Your task to perform on an android device: turn on data saver in the chrome app Image 0: 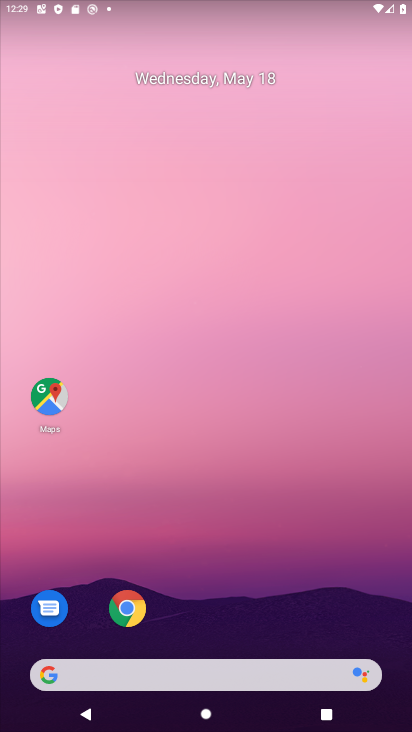
Step 0: click (111, 597)
Your task to perform on an android device: turn on data saver in the chrome app Image 1: 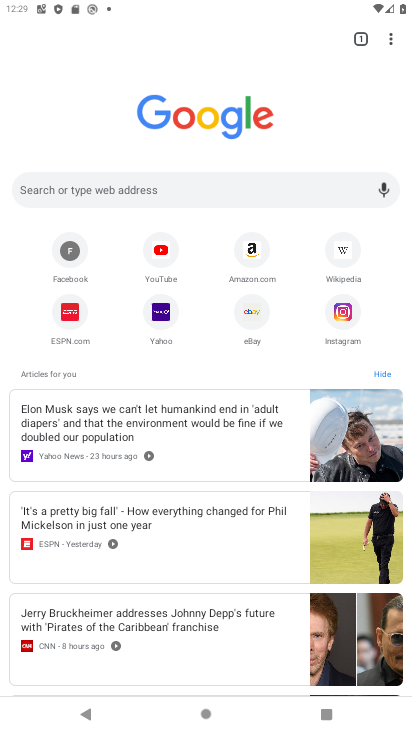
Step 1: click (390, 33)
Your task to perform on an android device: turn on data saver in the chrome app Image 2: 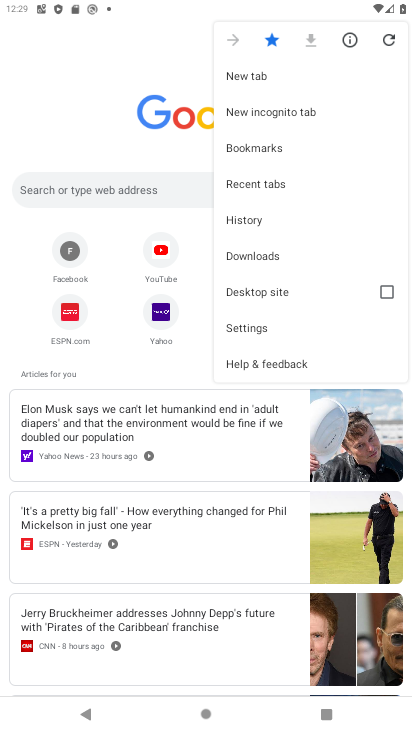
Step 2: click (275, 327)
Your task to perform on an android device: turn on data saver in the chrome app Image 3: 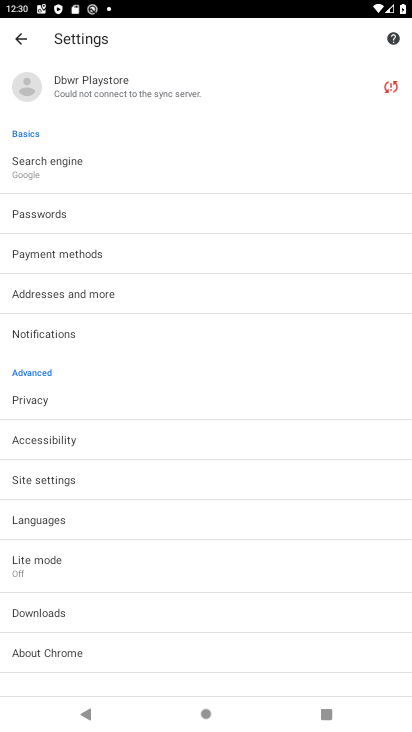
Step 3: click (102, 563)
Your task to perform on an android device: turn on data saver in the chrome app Image 4: 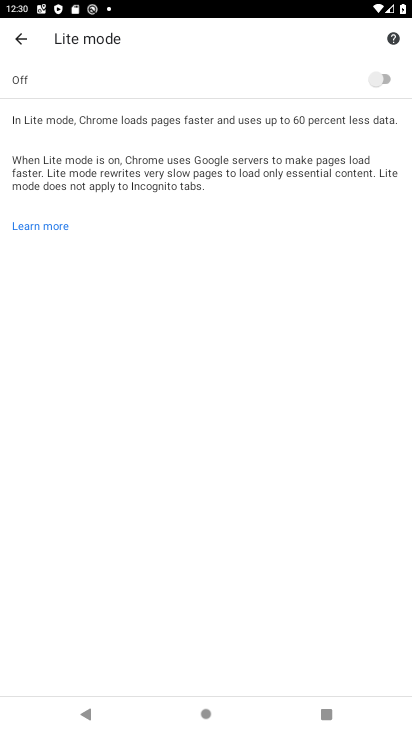
Step 4: click (382, 78)
Your task to perform on an android device: turn on data saver in the chrome app Image 5: 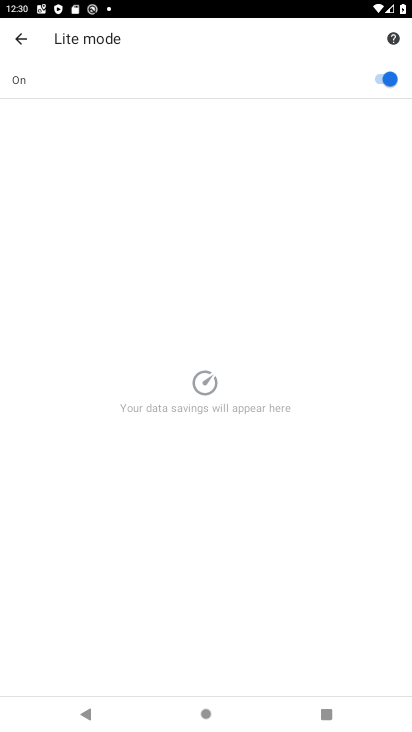
Step 5: task complete